Your task to perform on an android device: Open internet settings Image 0: 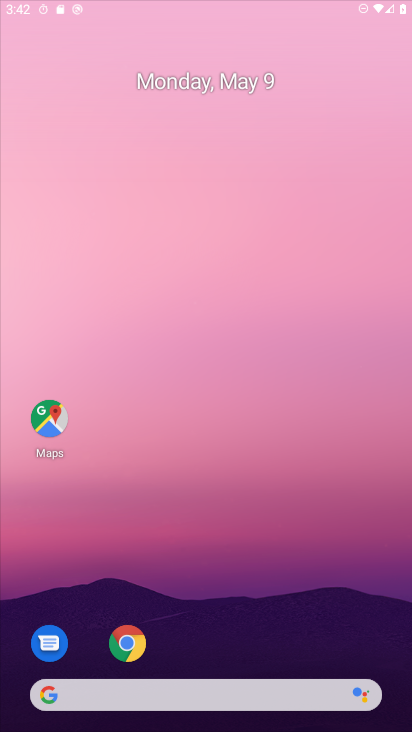
Step 0: drag from (207, 625) to (194, 74)
Your task to perform on an android device: Open internet settings Image 1: 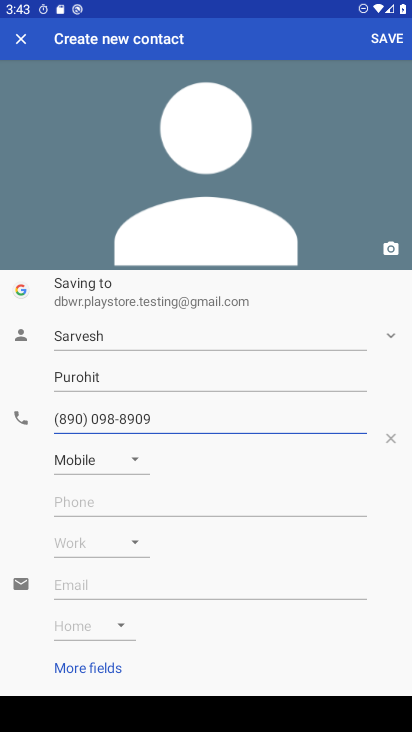
Step 1: press home button
Your task to perform on an android device: Open internet settings Image 2: 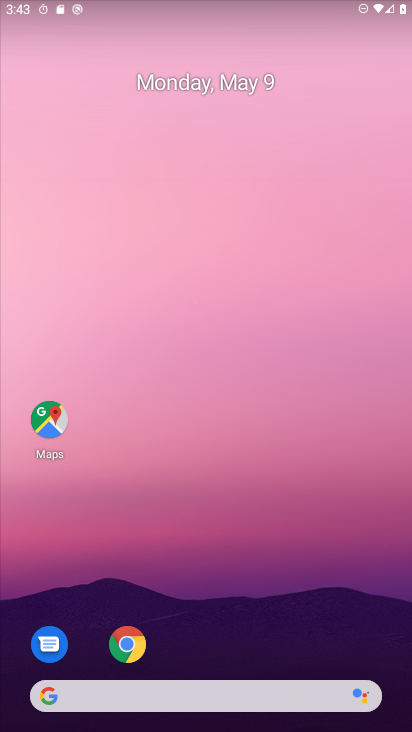
Step 2: drag from (230, 644) to (257, 48)
Your task to perform on an android device: Open internet settings Image 3: 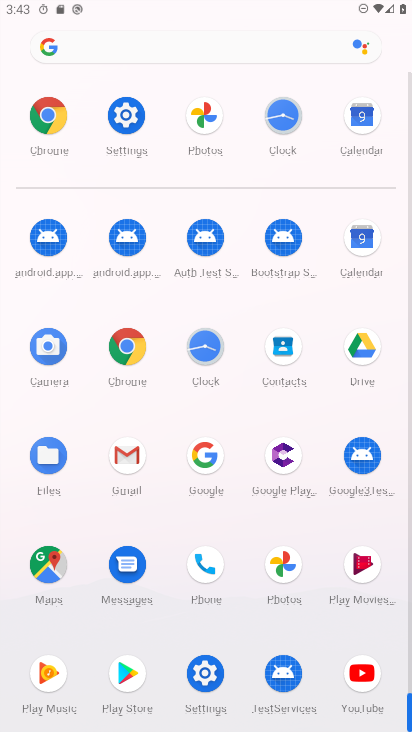
Step 3: click (120, 116)
Your task to perform on an android device: Open internet settings Image 4: 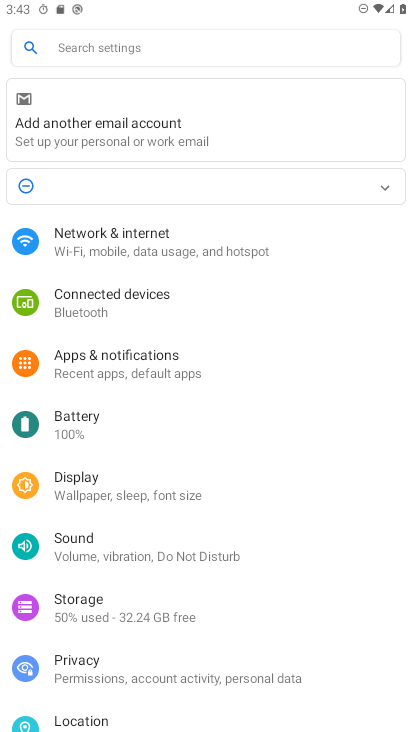
Step 4: click (100, 258)
Your task to perform on an android device: Open internet settings Image 5: 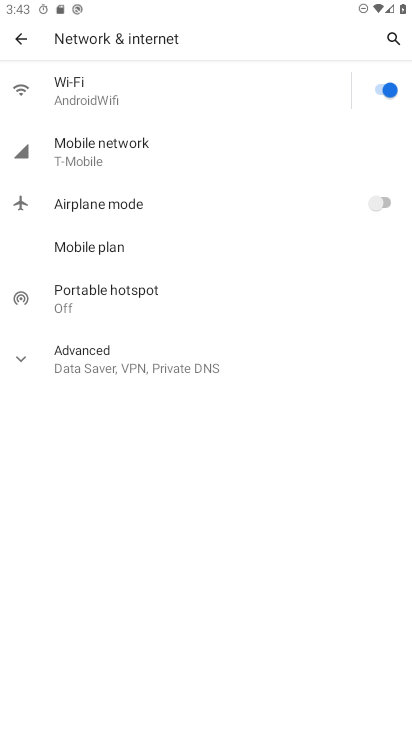
Step 5: task complete